Your task to perform on an android device: Open Wikipedia Image 0: 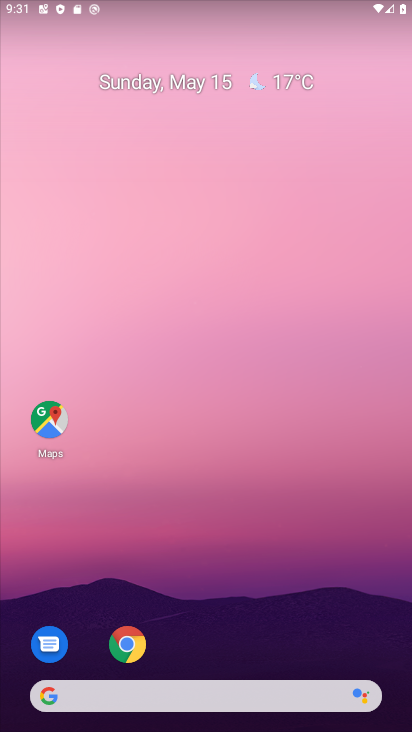
Step 0: drag from (301, 660) to (304, 243)
Your task to perform on an android device: Open Wikipedia Image 1: 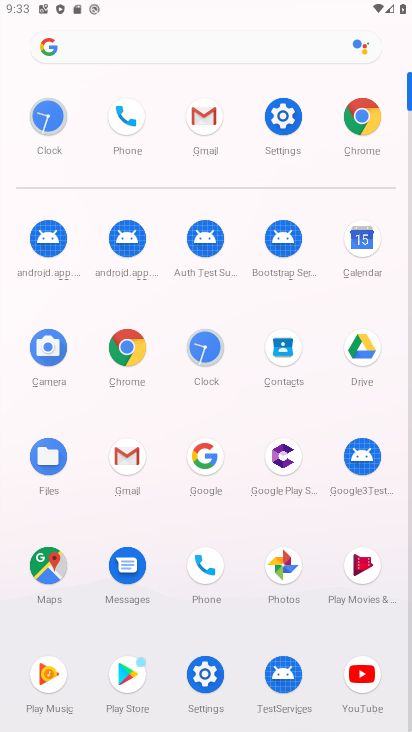
Step 1: click (358, 135)
Your task to perform on an android device: Open Wikipedia Image 2: 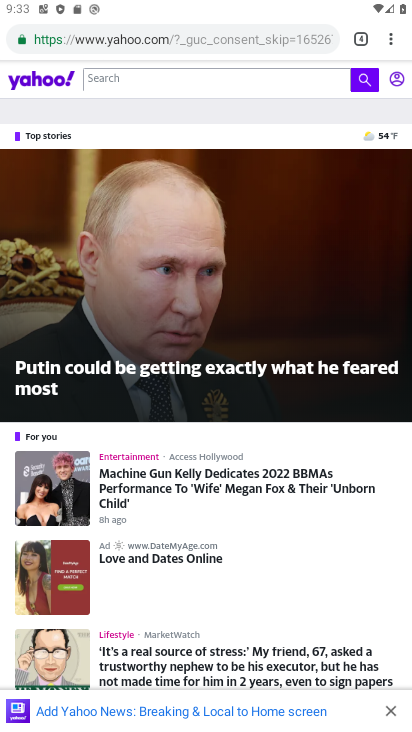
Step 2: click (358, 35)
Your task to perform on an android device: Open Wikipedia Image 3: 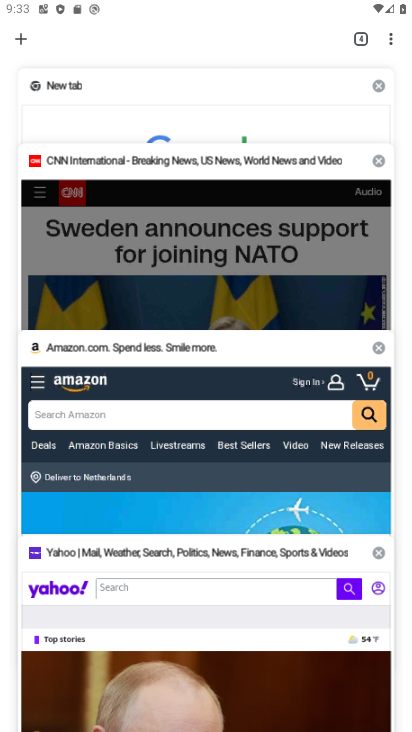
Step 3: click (22, 39)
Your task to perform on an android device: Open Wikipedia Image 4: 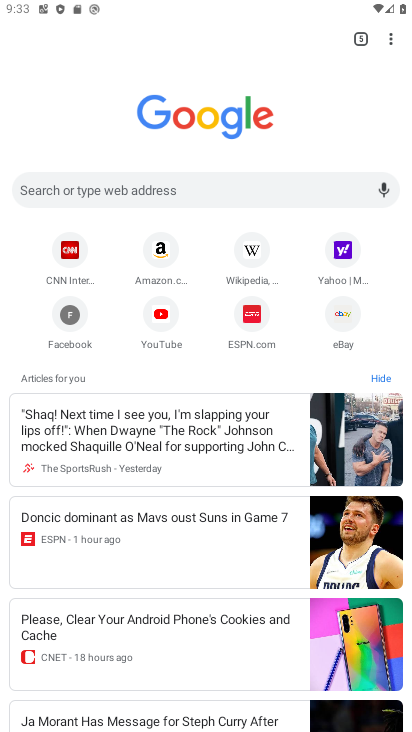
Step 4: click (269, 240)
Your task to perform on an android device: Open Wikipedia Image 5: 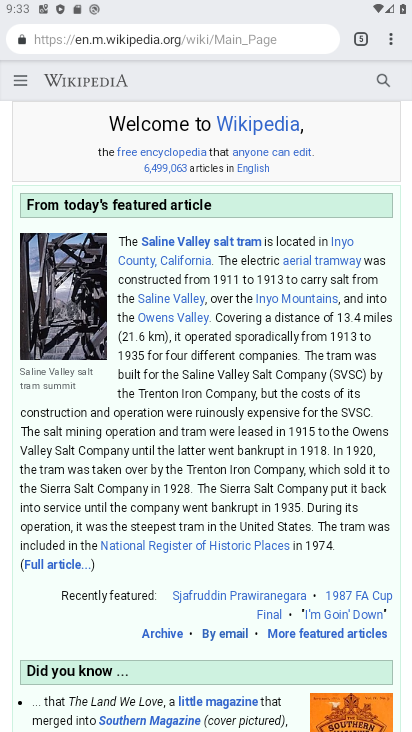
Step 5: task complete